Your task to perform on an android device: all mails in gmail Image 0: 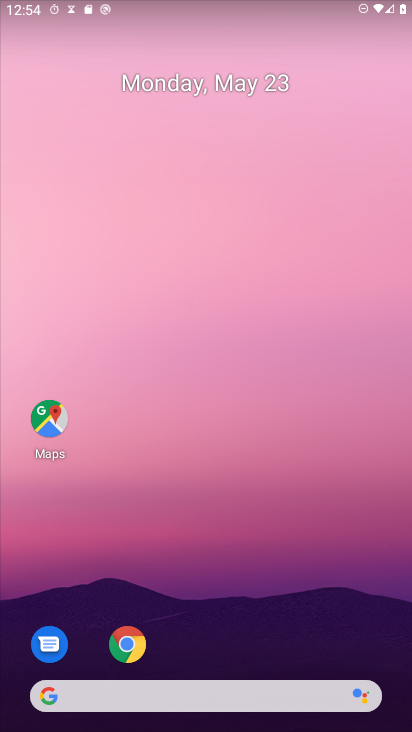
Step 0: drag from (289, 652) to (259, 93)
Your task to perform on an android device: all mails in gmail Image 1: 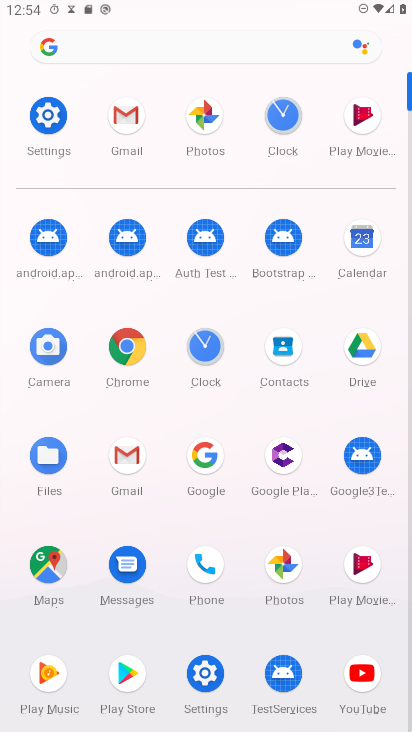
Step 1: click (129, 454)
Your task to perform on an android device: all mails in gmail Image 2: 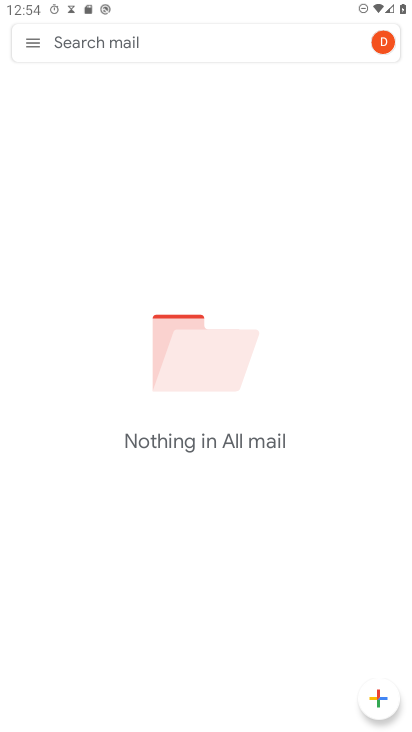
Step 2: task complete